Your task to perform on an android device: Search for a new perfume Image 0: 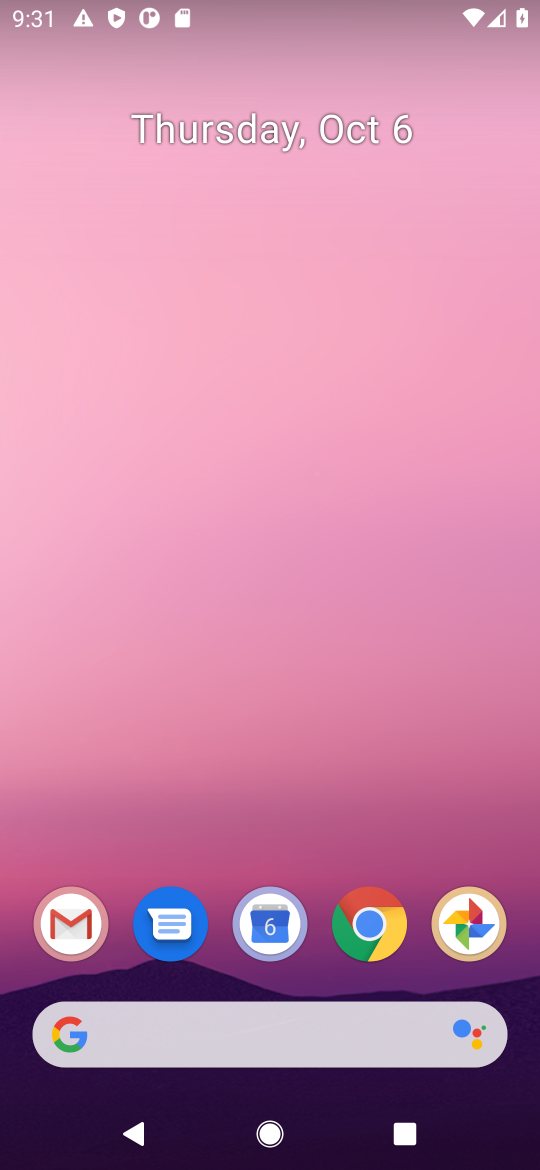
Step 0: click (378, 944)
Your task to perform on an android device: Search for a new perfume Image 1: 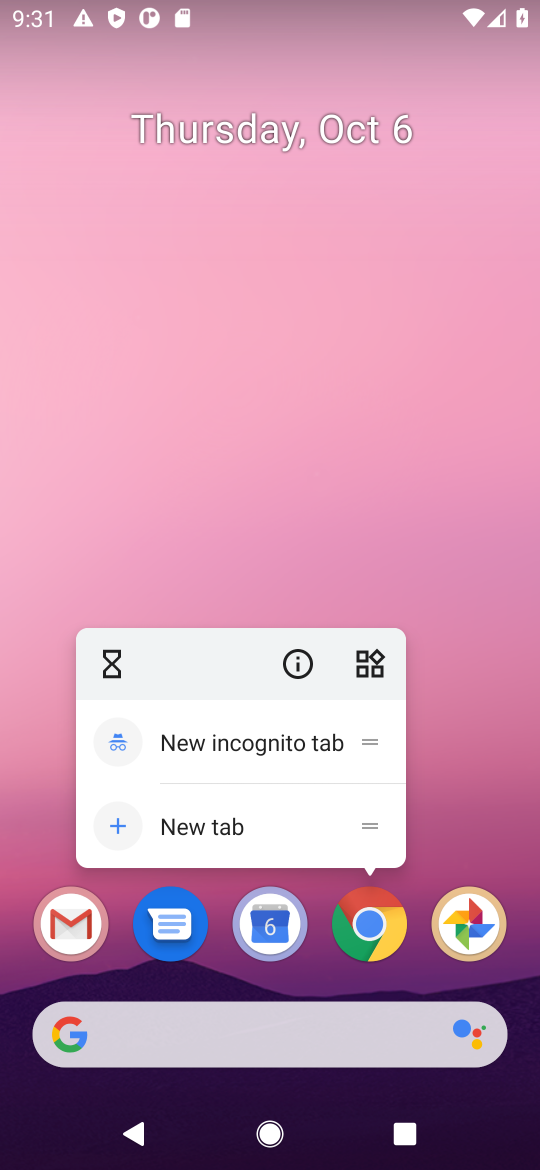
Step 1: click (370, 931)
Your task to perform on an android device: Search for a new perfume Image 2: 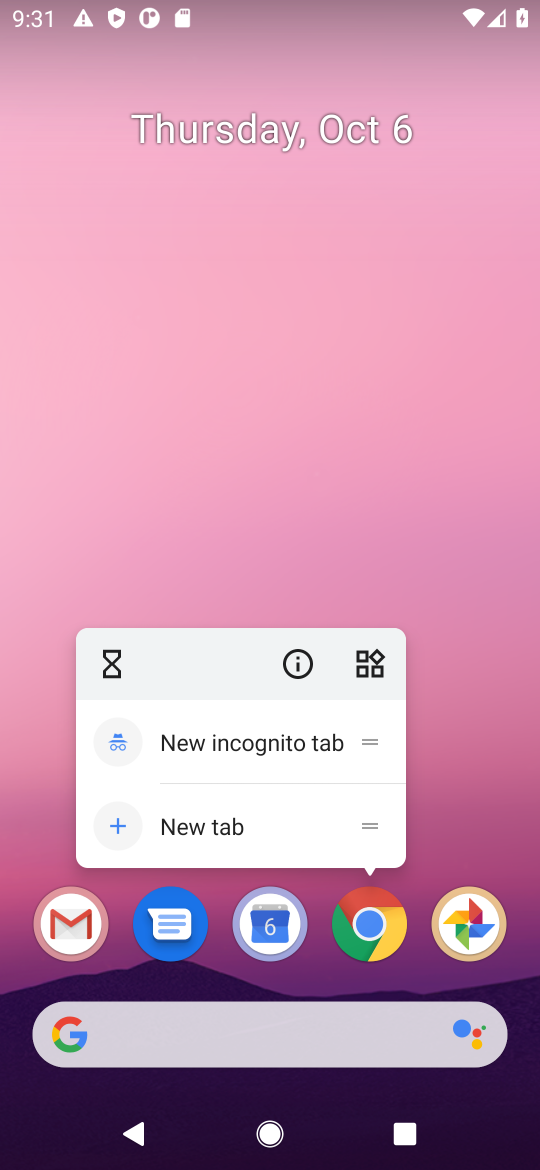
Step 2: click (368, 925)
Your task to perform on an android device: Search for a new perfume Image 3: 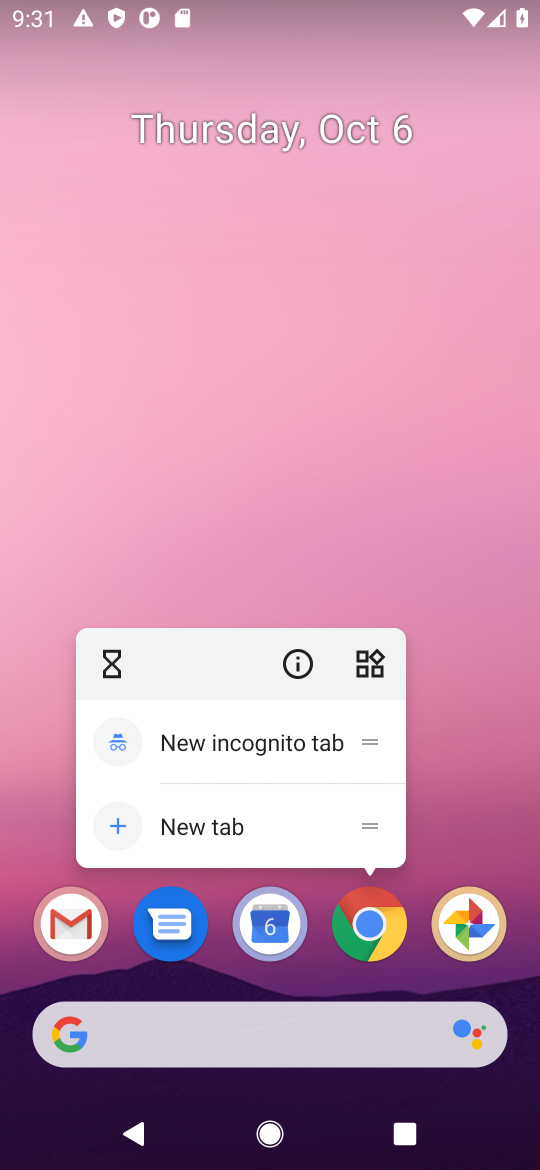
Step 3: click (368, 925)
Your task to perform on an android device: Search for a new perfume Image 4: 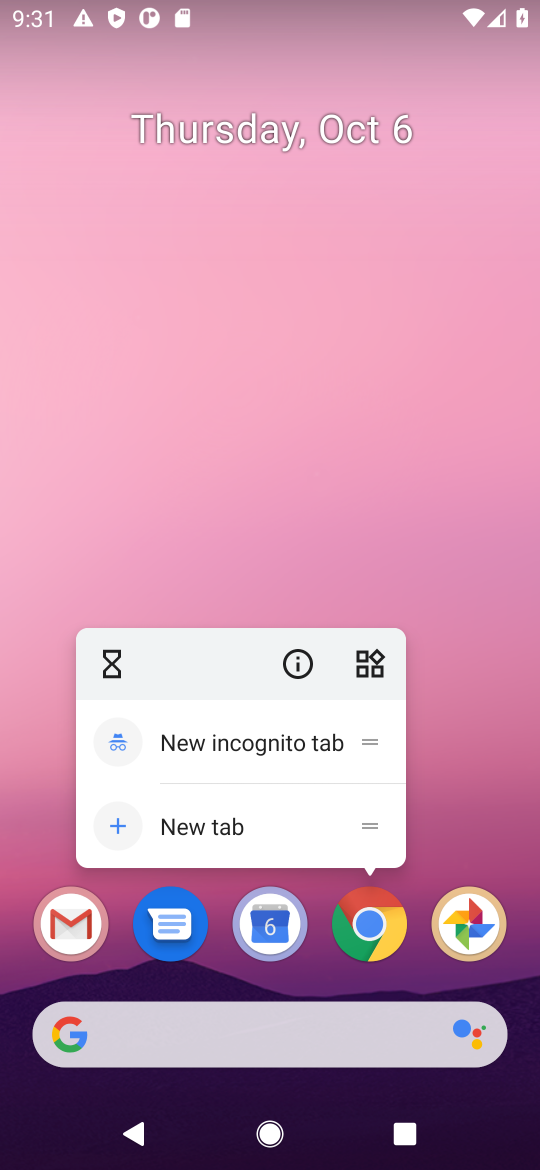
Step 4: click (381, 924)
Your task to perform on an android device: Search for a new perfume Image 5: 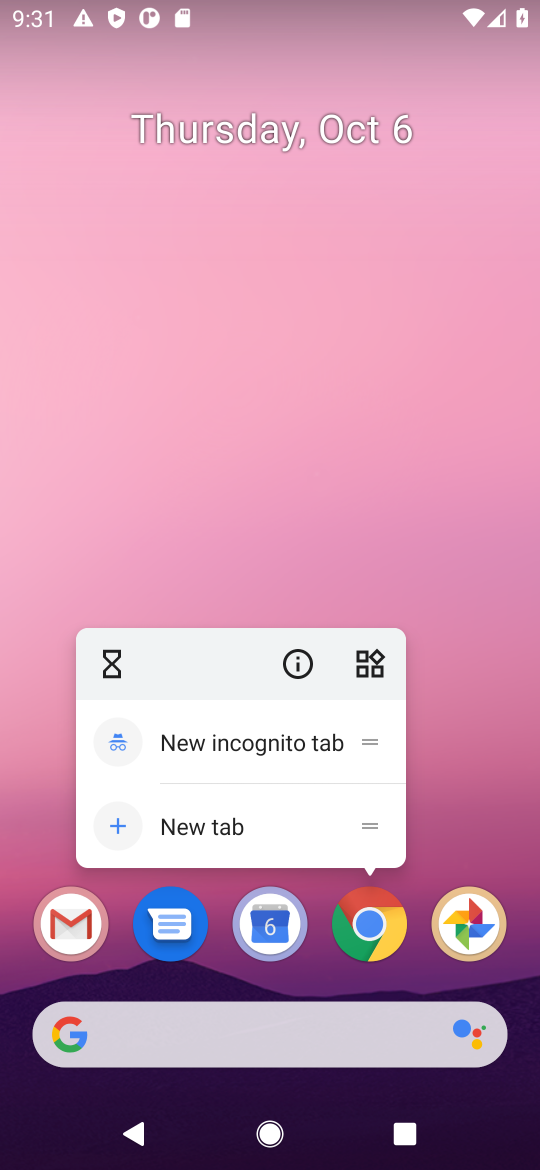
Step 5: click (368, 915)
Your task to perform on an android device: Search for a new perfume Image 6: 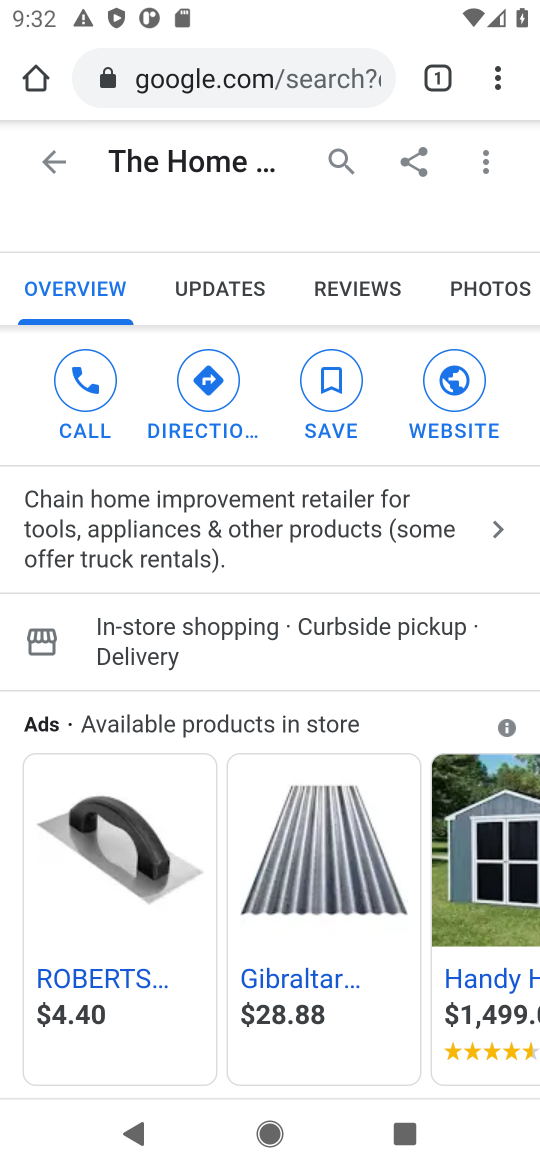
Step 6: click (327, 73)
Your task to perform on an android device: Search for a new perfume Image 7: 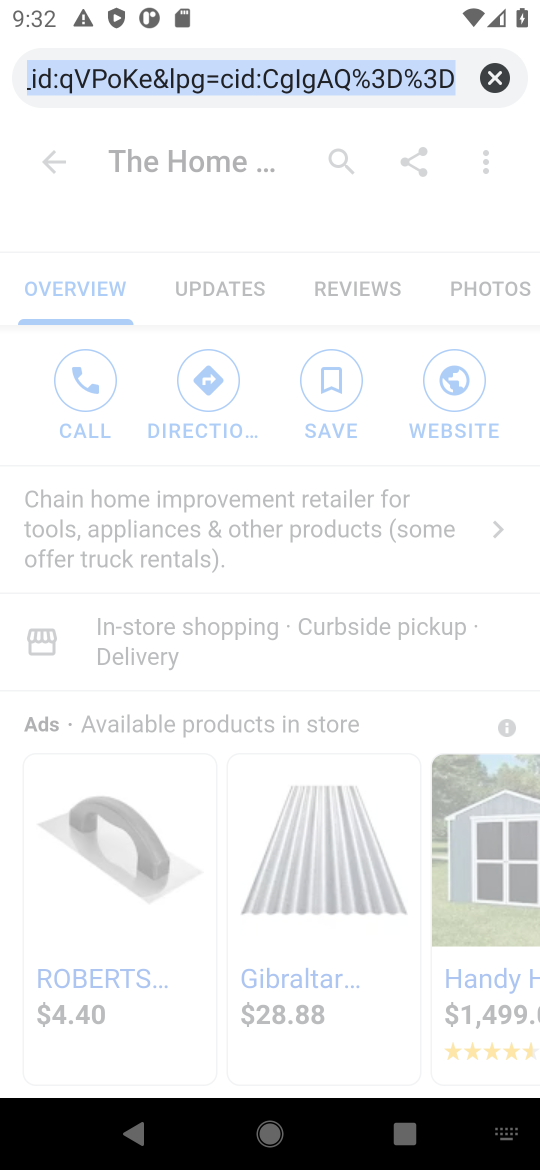
Step 7: click (496, 73)
Your task to perform on an android device: Search for a new perfume Image 8: 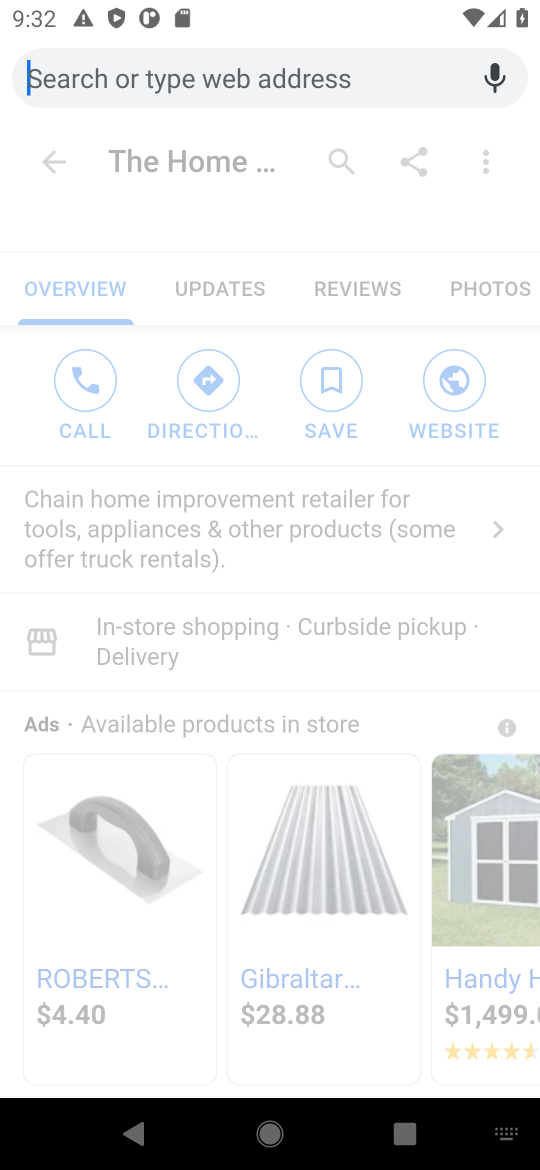
Step 8: type "new perfume"
Your task to perform on an android device: Search for a new perfume Image 9: 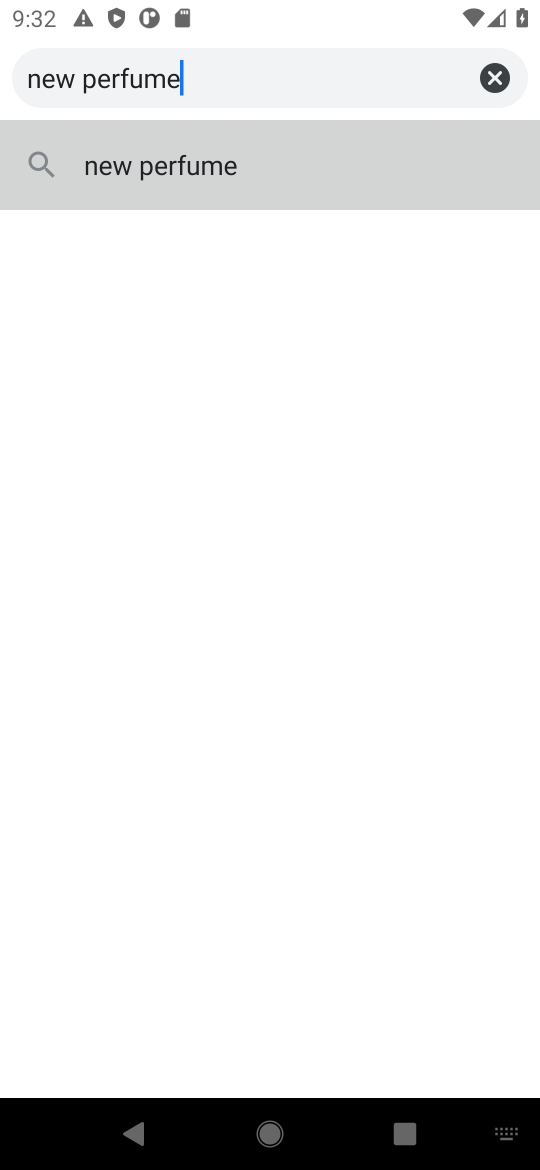
Step 9: click (193, 156)
Your task to perform on an android device: Search for a new perfume Image 10: 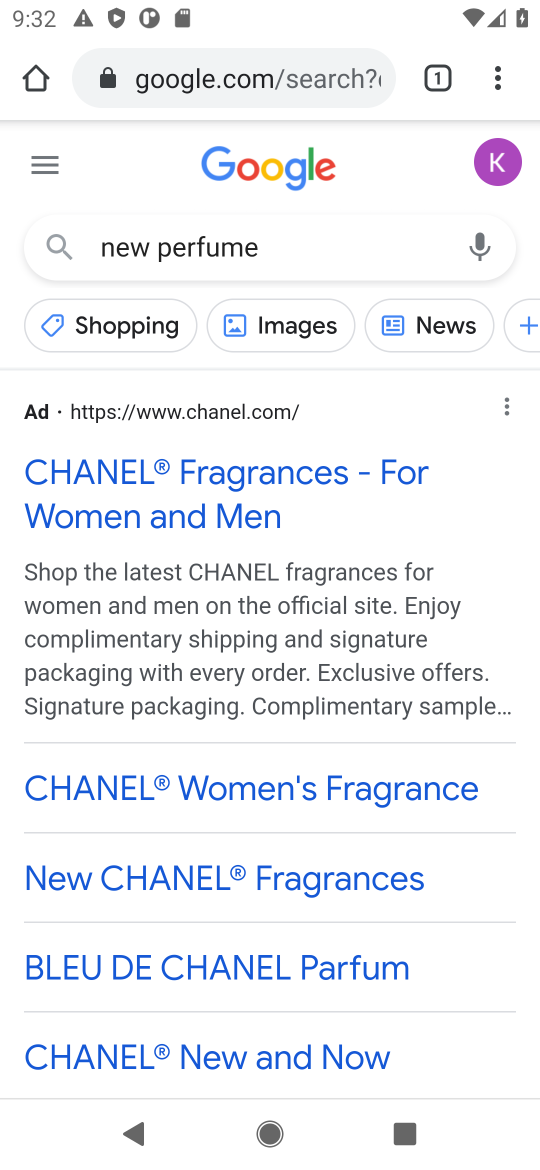
Step 10: drag from (138, 1002) to (332, 441)
Your task to perform on an android device: Search for a new perfume Image 11: 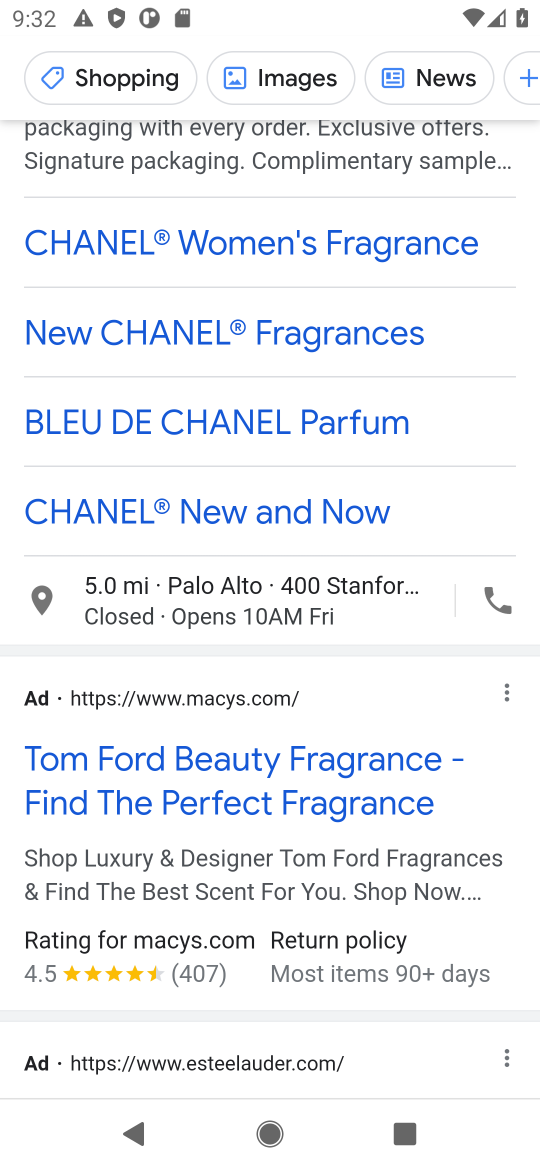
Step 11: click (197, 762)
Your task to perform on an android device: Search for a new perfume Image 12: 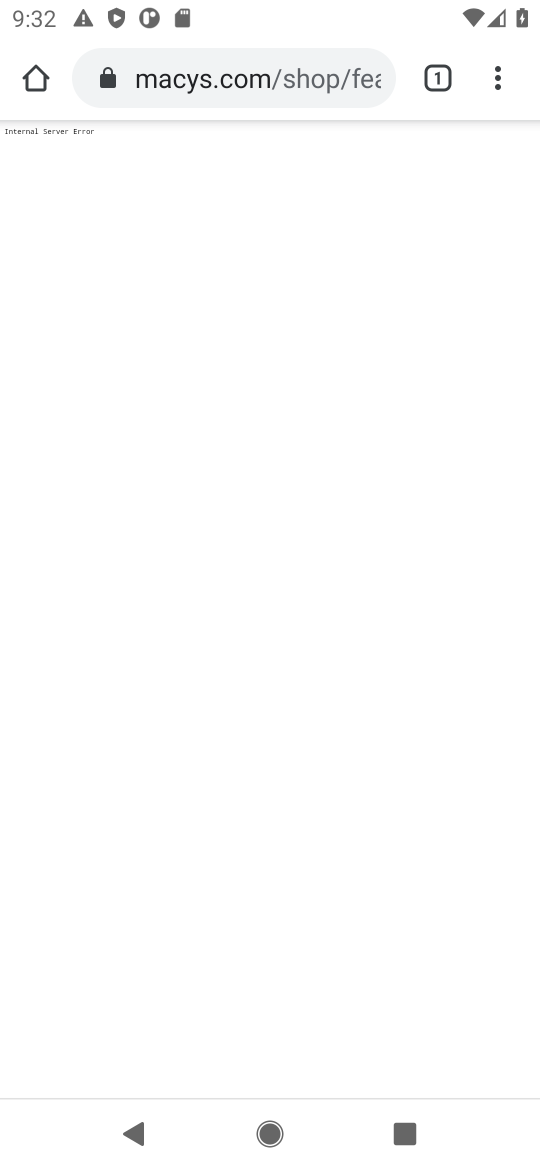
Step 12: press back button
Your task to perform on an android device: Search for a new perfume Image 13: 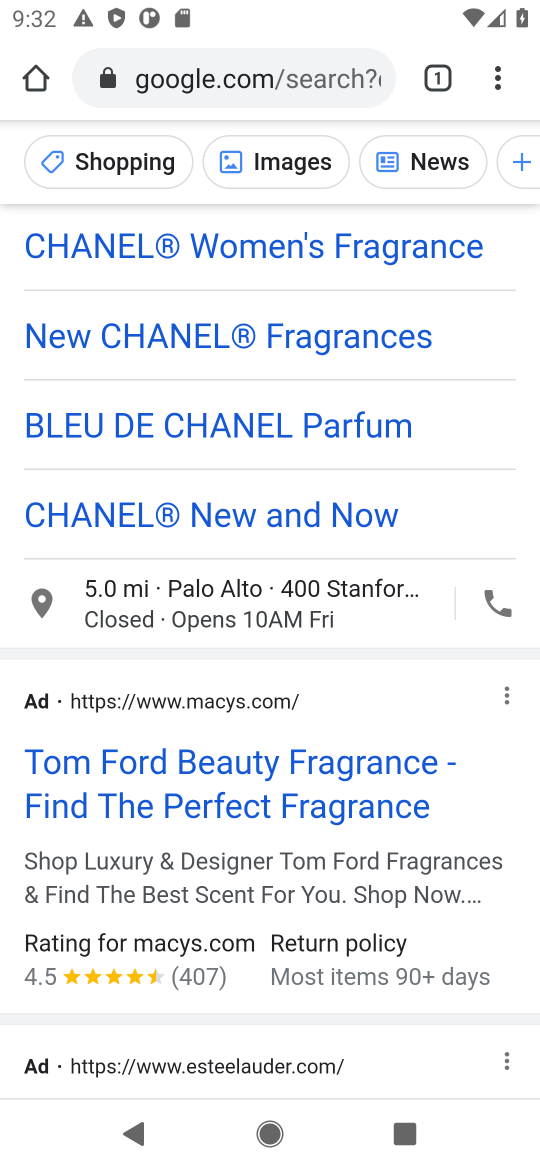
Step 13: drag from (216, 909) to (389, 355)
Your task to perform on an android device: Search for a new perfume Image 14: 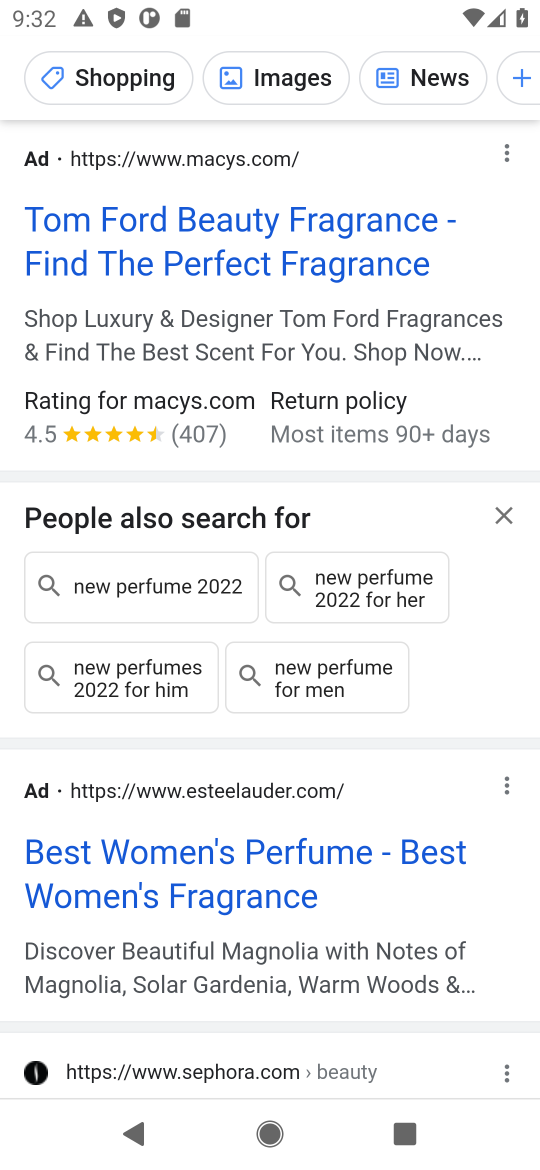
Step 14: click (212, 852)
Your task to perform on an android device: Search for a new perfume Image 15: 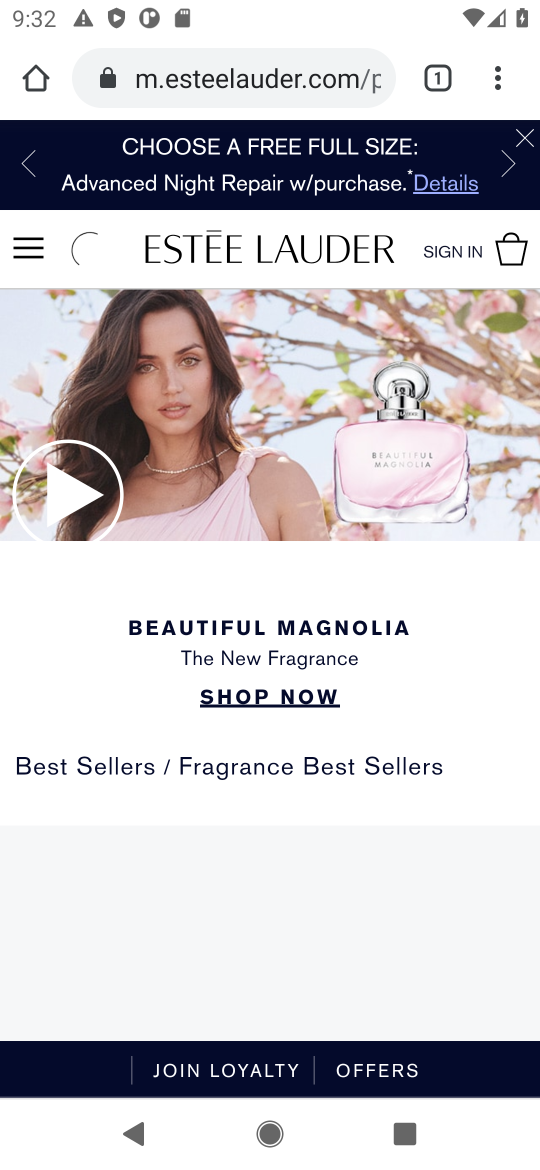
Step 15: drag from (224, 933) to (400, 171)
Your task to perform on an android device: Search for a new perfume Image 16: 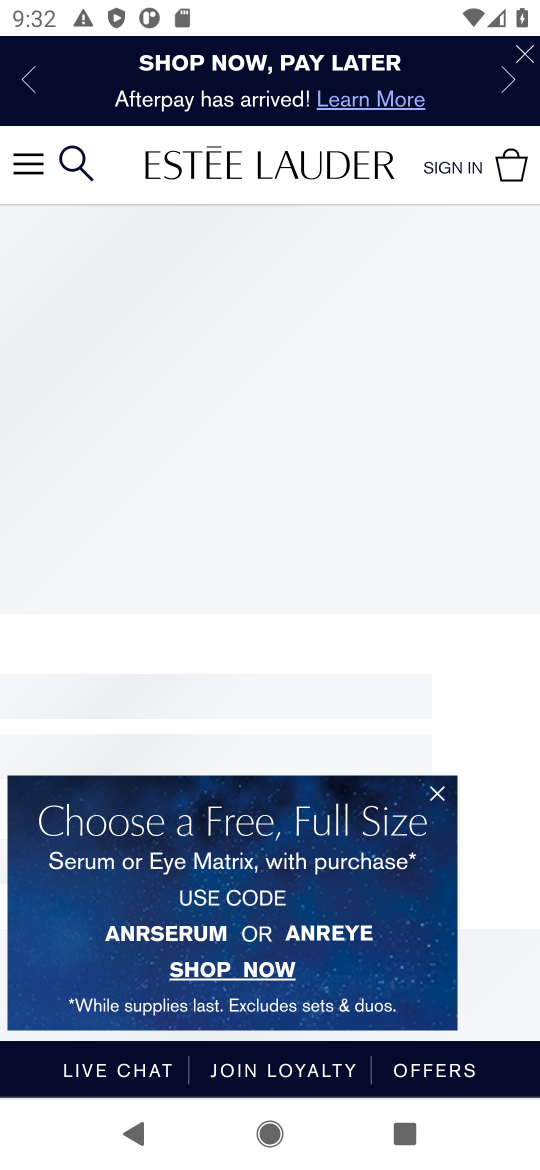
Step 16: click (440, 794)
Your task to perform on an android device: Search for a new perfume Image 17: 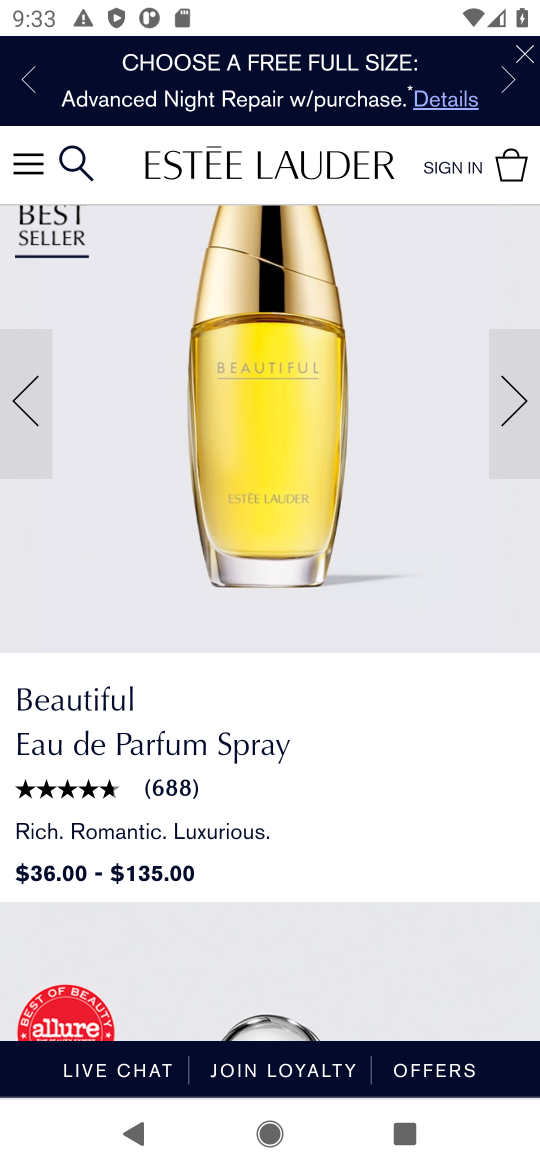
Step 17: task complete